Your task to perform on an android device: Search for the best 100% cotton t-shirts Image 0: 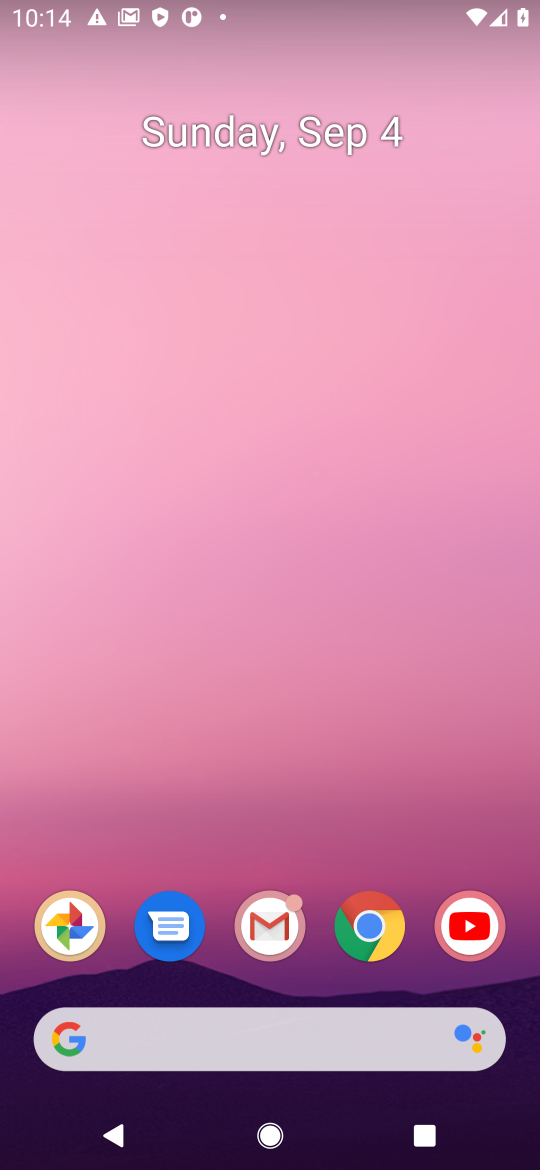
Step 0: press home button
Your task to perform on an android device: Search for the best 100% cotton t-shirts Image 1: 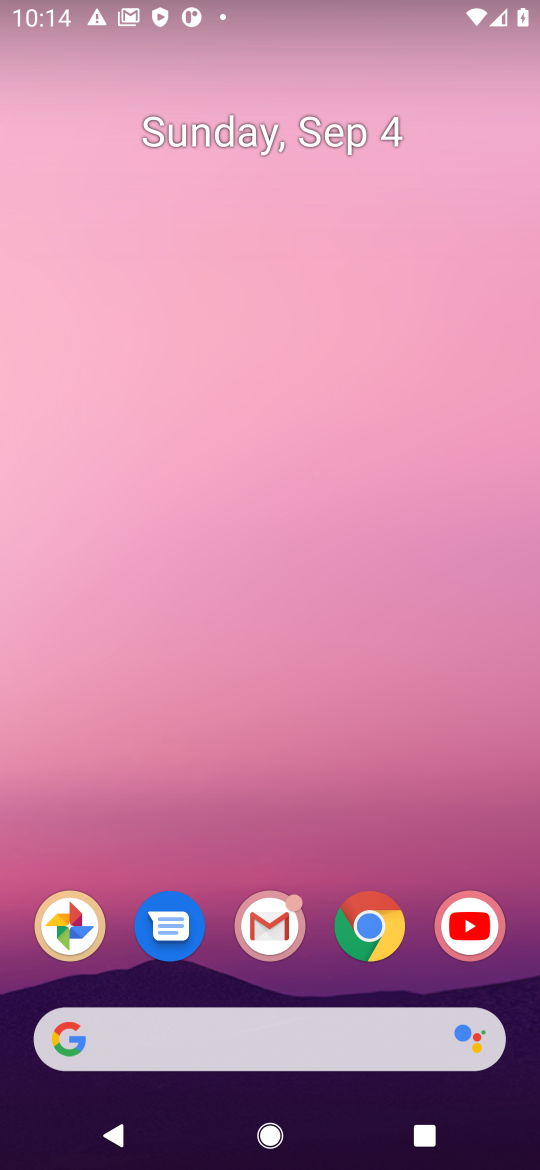
Step 1: drag from (384, 1046) to (455, 51)
Your task to perform on an android device: Search for the best 100% cotton t-shirts Image 2: 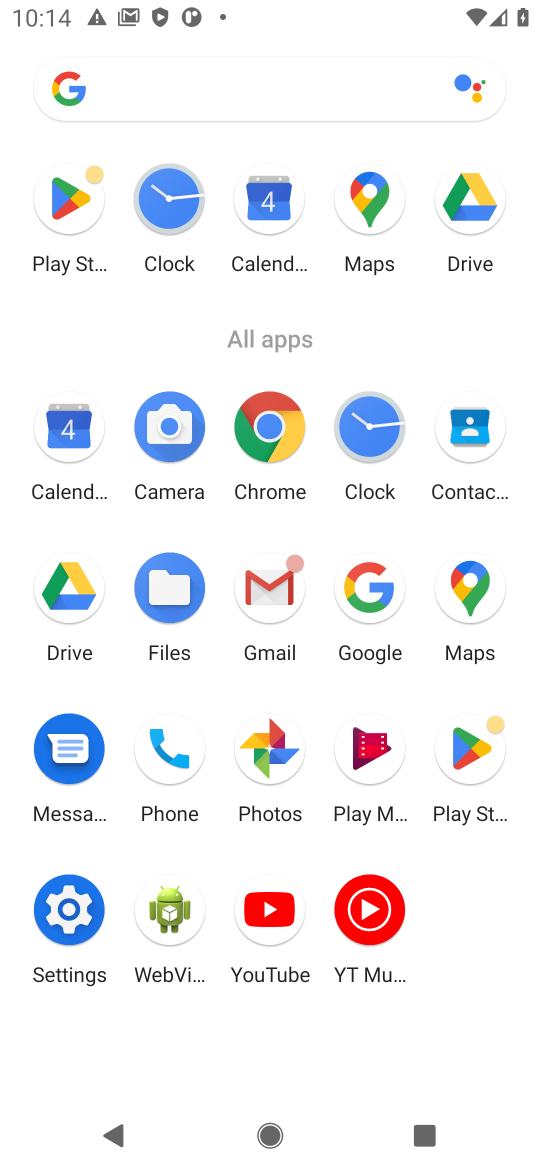
Step 2: click (381, 588)
Your task to perform on an android device: Search for the best 100% cotton t-shirts Image 3: 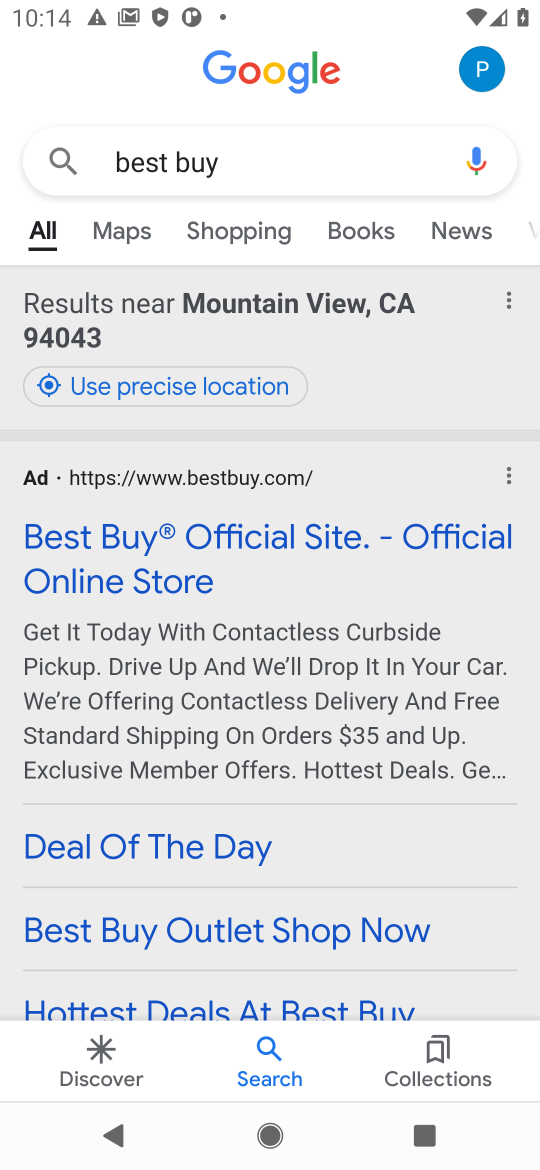
Step 3: click (312, 160)
Your task to perform on an android device: Search for the best 100% cotton t-shirts Image 4: 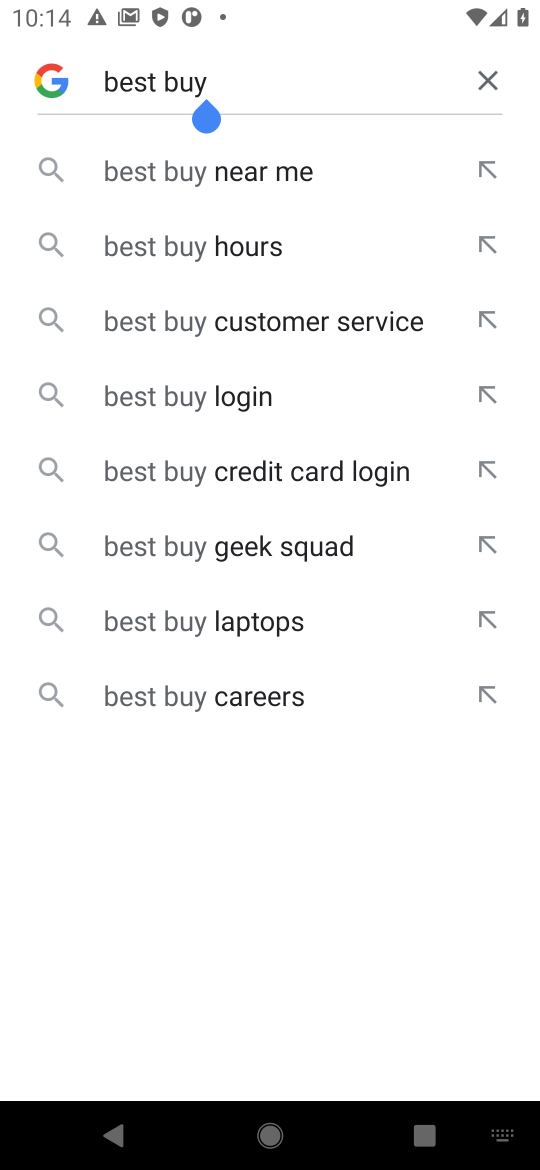
Step 4: click (488, 77)
Your task to perform on an android device: Search for the best 100% cotton t-shirts Image 5: 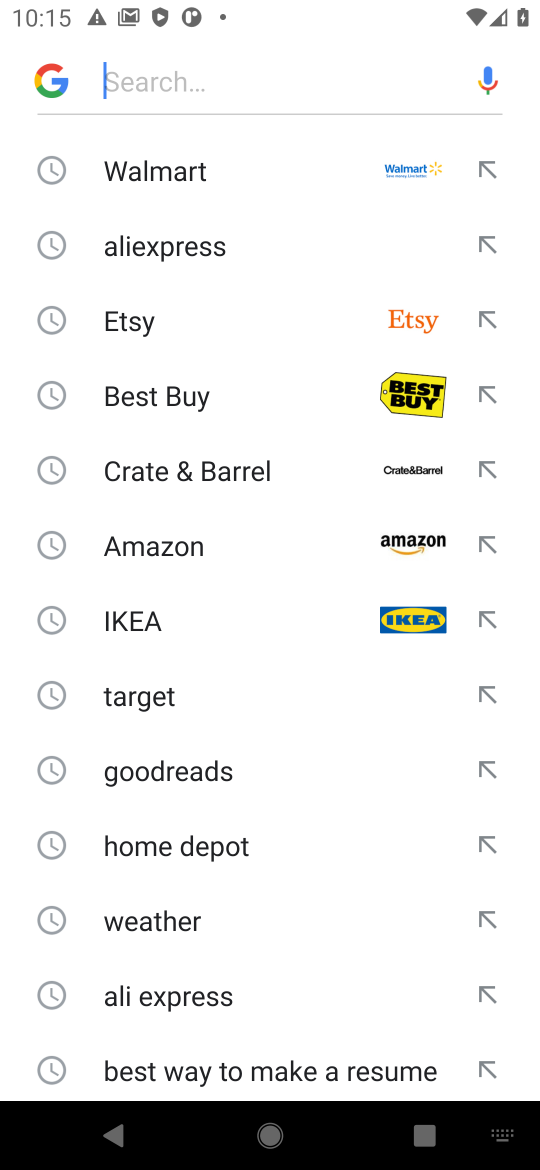
Step 5: type "best 100% cotton t shirts"
Your task to perform on an android device: Search for the best 100% cotton t-shirts Image 6: 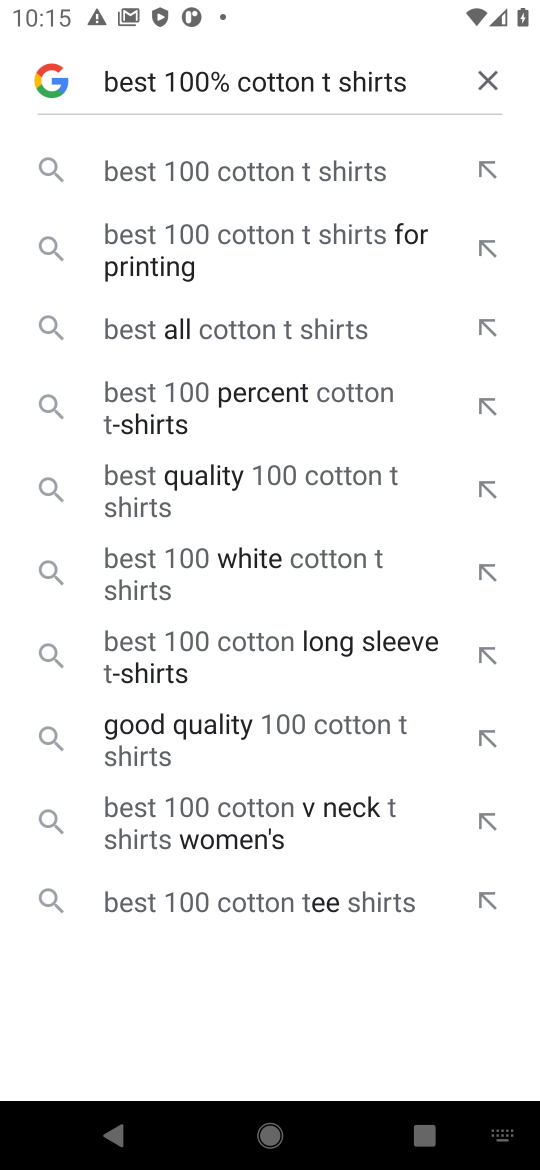
Step 6: press enter
Your task to perform on an android device: Search for the best 100% cotton t-shirts Image 7: 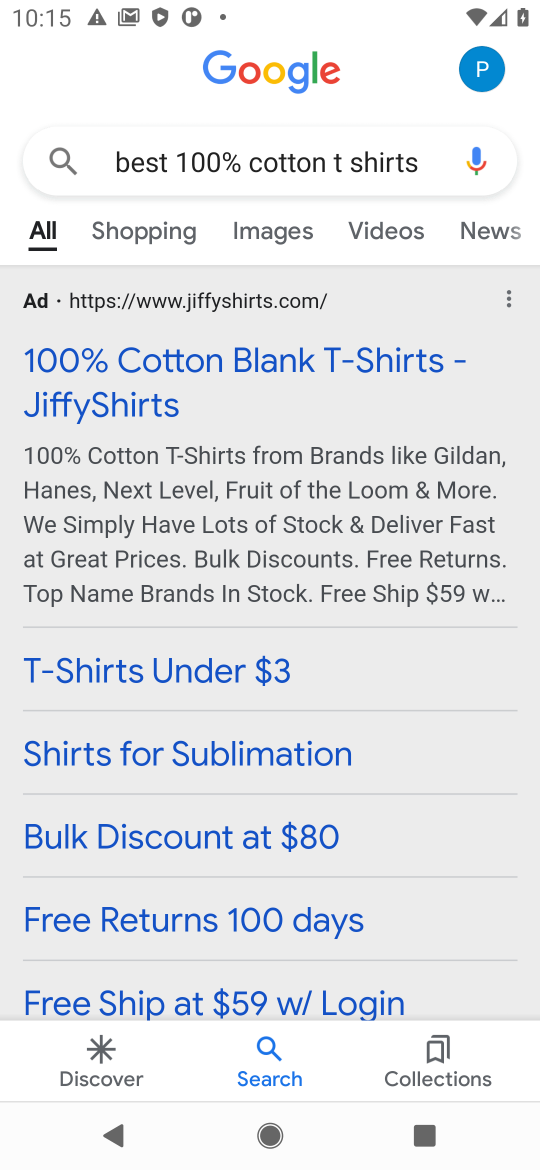
Step 7: click (179, 375)
Your task to perform on an android device: Search for the best 100% cotton t-shirts Image 8: 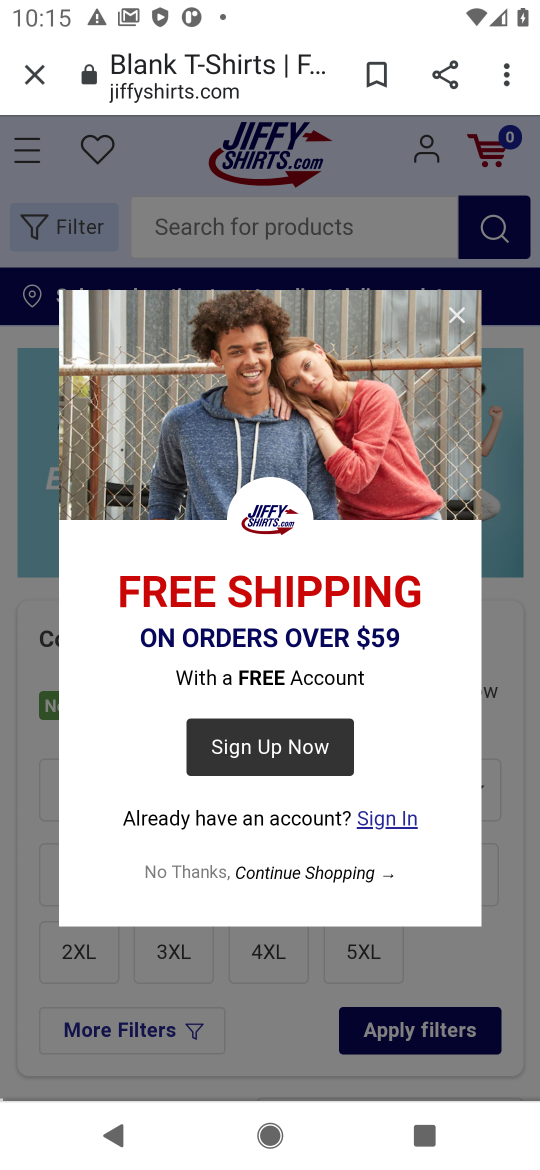
Step 8: click (454, 323)
Your task to perform on an android device: Search for the best 100% cotton t-shirts Image 9: 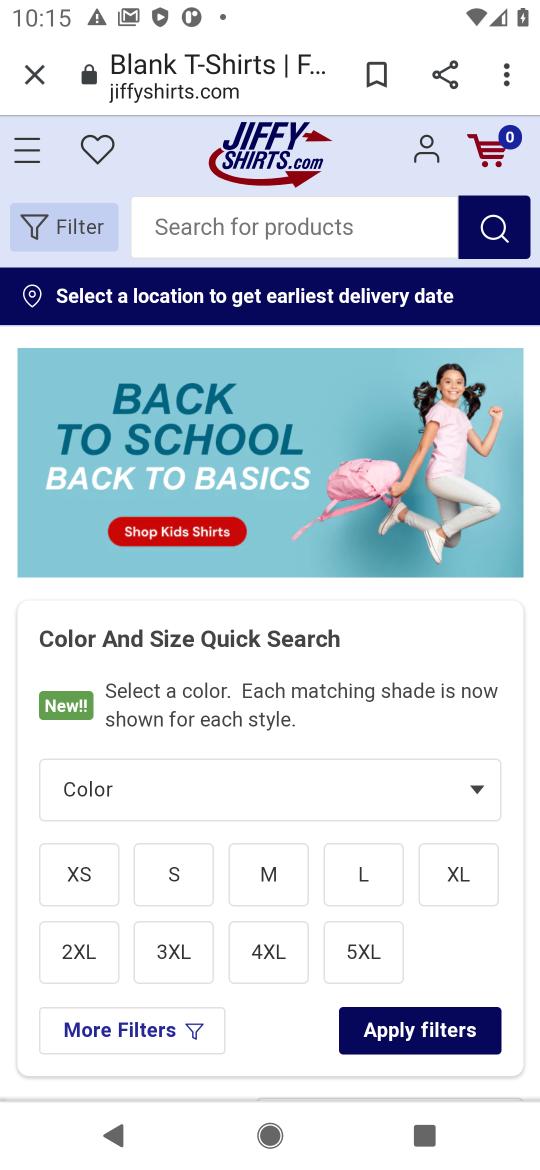
Step 9: task complete